Your task to perform on an android device: Show me productivity apps on the Play Store Image 0: 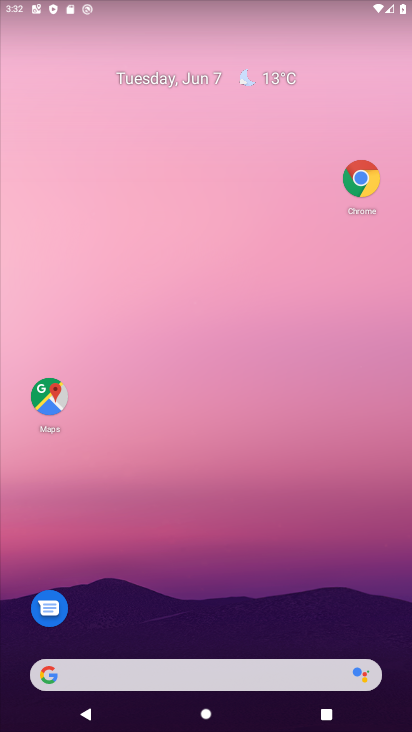
Step 0: drag from (102, 646) to (167, 91)
Your task to perform on an android device: Show me productivity apps on the Play Store Image 1: 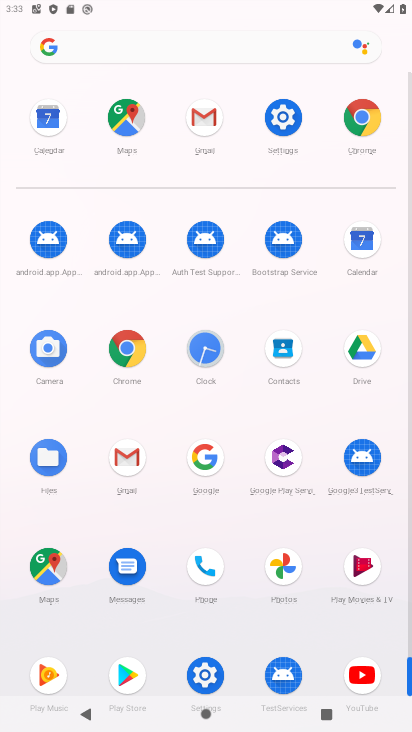
Step 1: click (113, 670)
Your task to perform on an android device: Show me productivity apps on the Play Store Image 2: 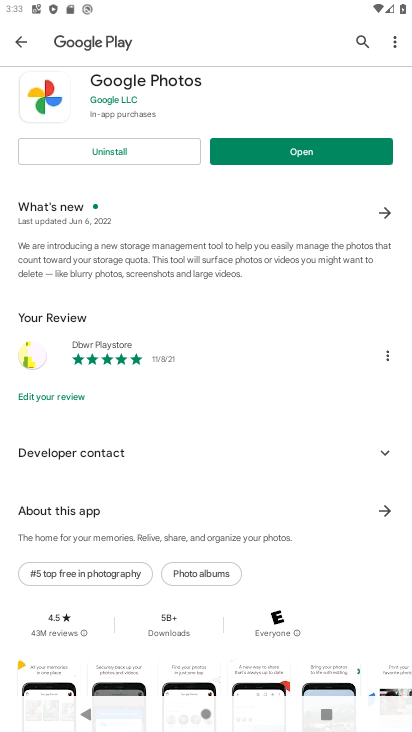
Step 2: click (28, 42)
Your task to perform on an android device: Show me productivity apps on the Play Store Image 3: 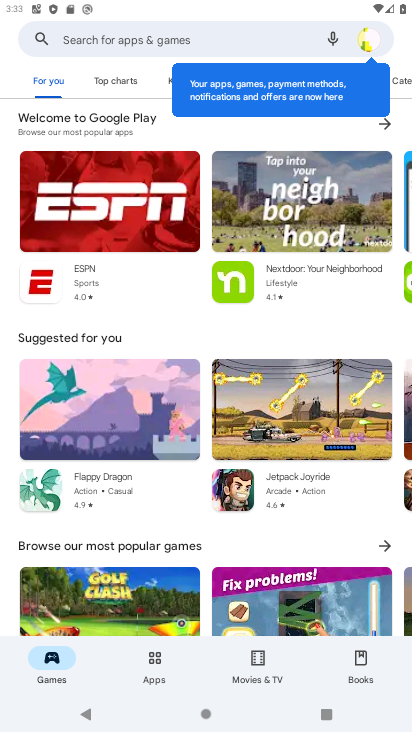
Step 3: click (154, 669)
Your task to perform on an android device: Show me productivity apps on the Play Store Image 4: 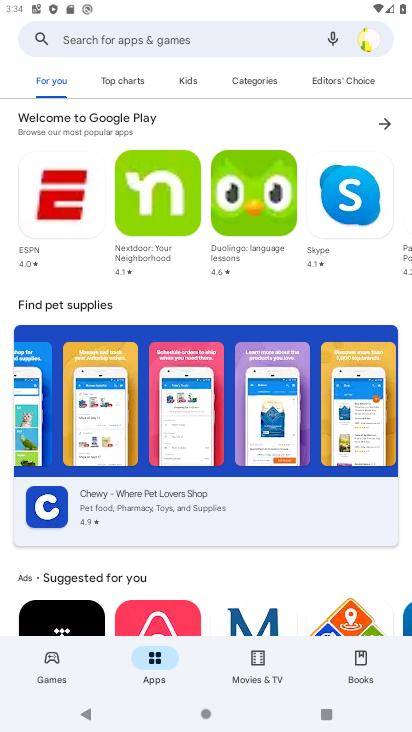
Step 4: drag from (181, 624) to (288, 207)
Your task to perform on an android device: Show me productivity apps on the Play Store Image 5: 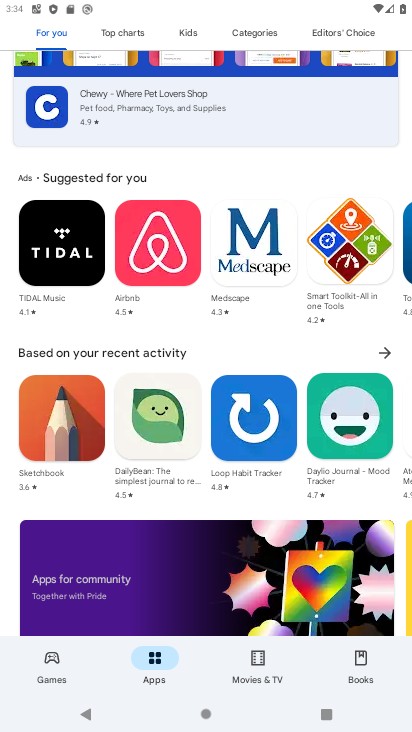
Step 5: drag from (183, 205) to (189, 633)
Your task to perform on an android device: Show me productivity apps on the Play Store Image 6: 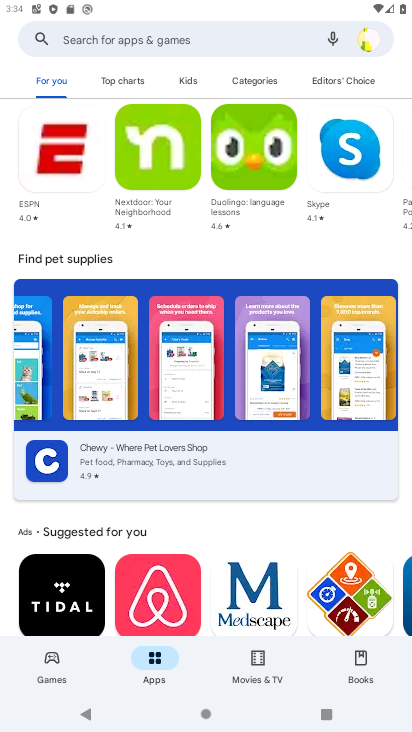
Step 6: click (277, 80)
Your task to perform on an android device: Show me productivity apps on the Play Store Image 7: 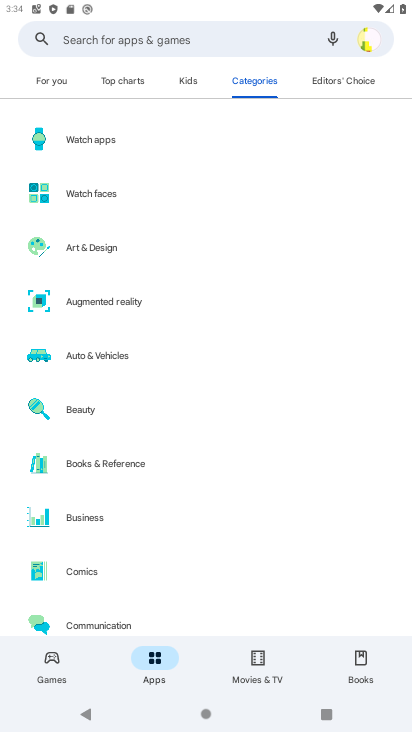
Step 7: drag from (172, 594) to (289, 238)
Your task to perform on an android device: Show me productivity apps on the Play Store Image 8: 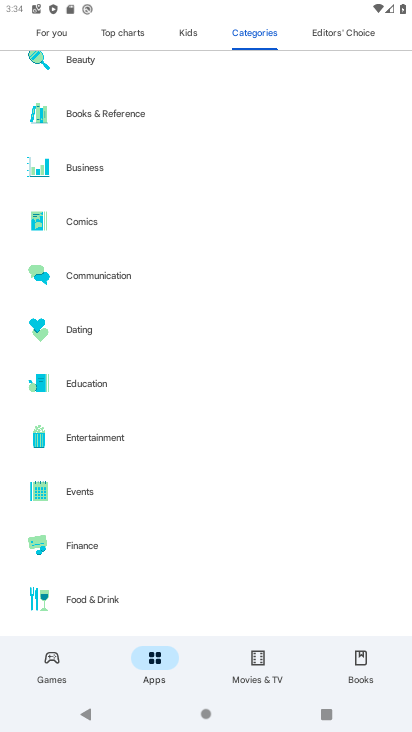
Step 8: drag from (175, 561) to (236, 256)
Your task to perform on an android device: Show me productivity apps on the Play Store Image 9: 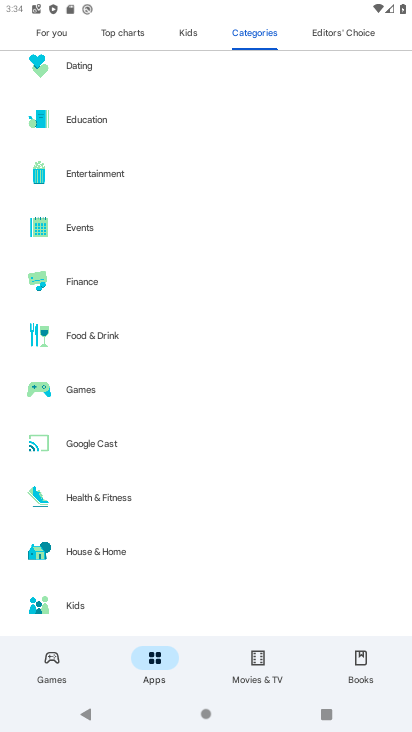
Step 9: drag from (160, 576) to (227, 209)
Your task to perform on an android device: Show me productivity apps on the Play Store Image 10: 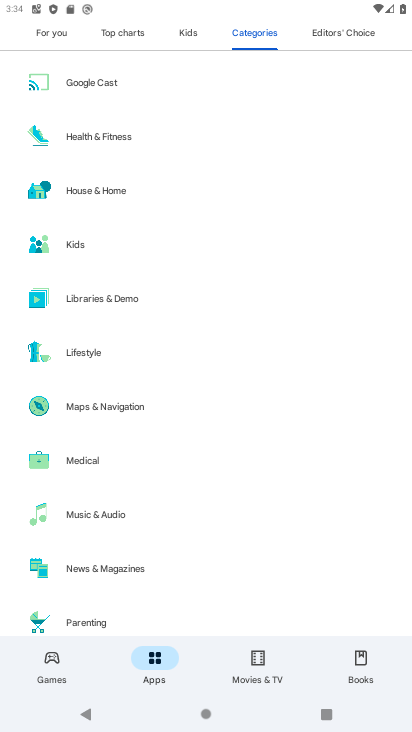
Step 10: drag from (184, 586) to (246, 278)
Your task to perform on an android device: Show me productivity apps on the Play Store Image 11: 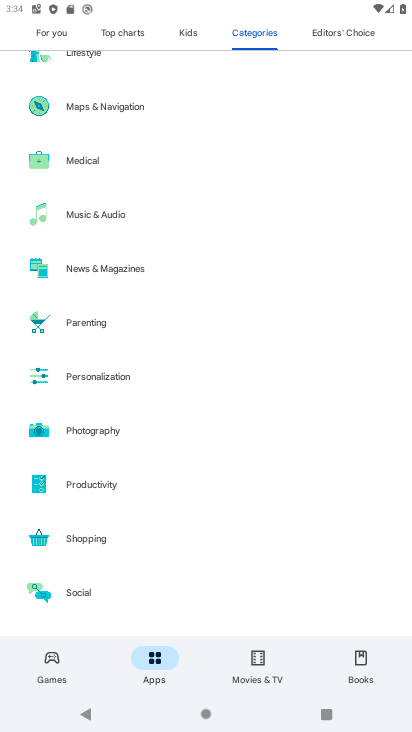
Step 11: drag from (133, 556) to (154, 471)
Your task to perform on an android device: Show me productivity apps on the Play Store Image 12: 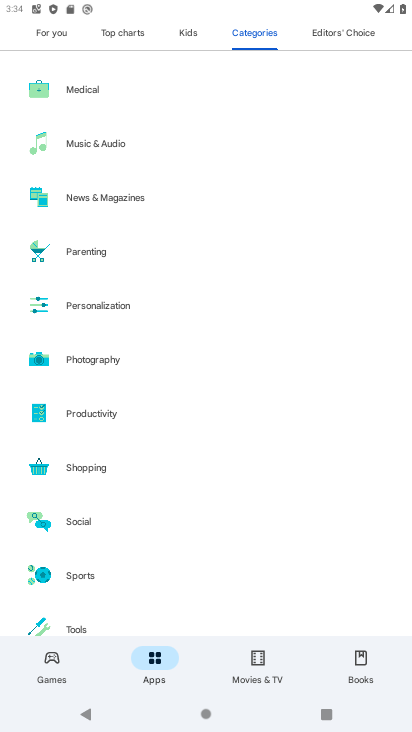
Step 12: click (129, 412)
Your task to perform on an android device: Show me productivity apps on the Play Store Image 13: 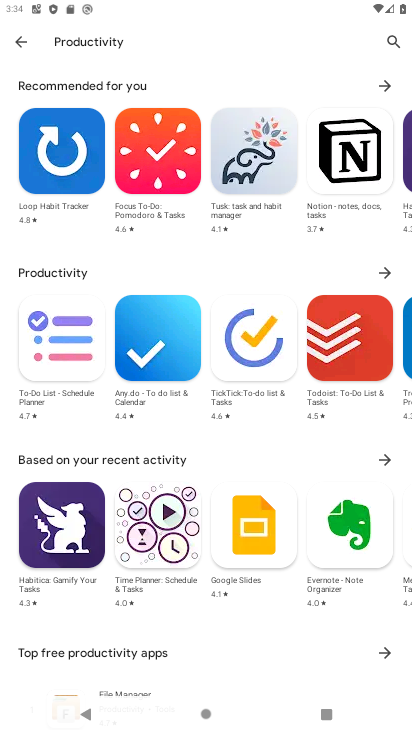
Step 13: task complete